Your task to perform on an android device: open chrome and create a bookmark for the current page Image 0: 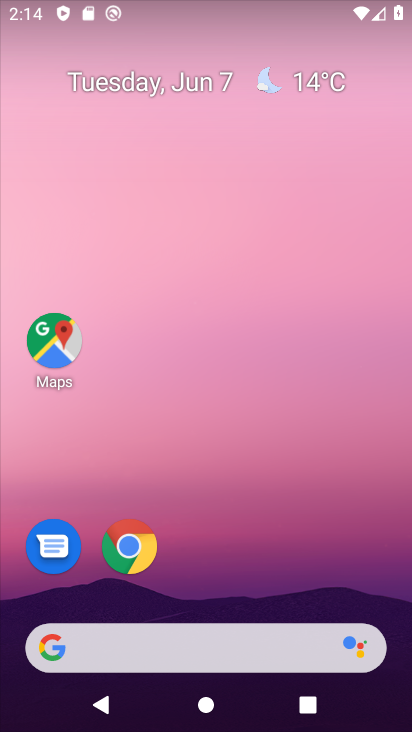
Step 0: click (133, 556)
Your task to perform on an android device: open chrome and create a bookmark for the current page Image 1: 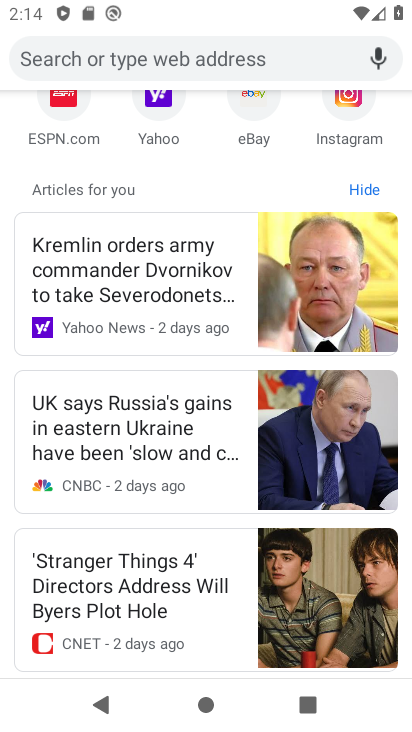
Step 1: drag from (192, 183) to (156, 687)
Your task to perform on an android device: open chrome and create a bookmark for the current page Image 2: 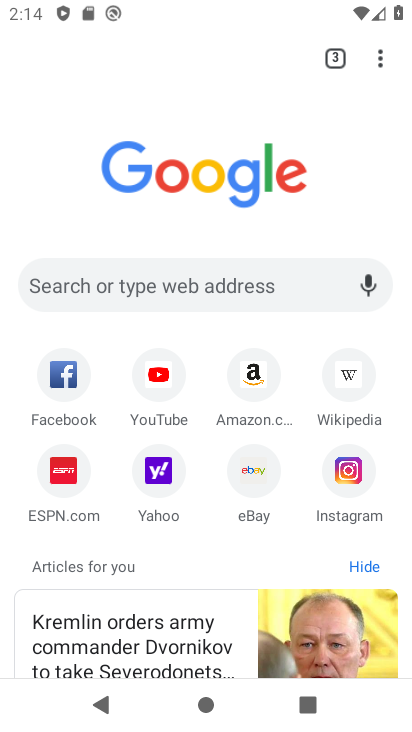
Step 2: click (151, 641)
Your task to perform on an android device: open chrome and create a bookmark for the current page Image 3: 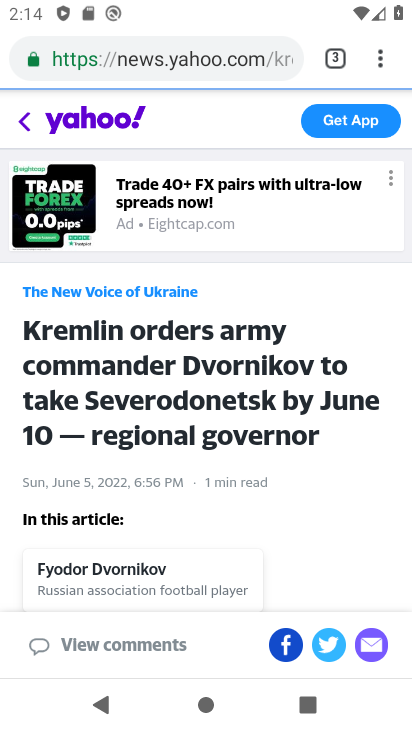
Step 3: click (387, 61)
Your task to perform on an android device: open chrome and create a bookmark for the current page Image 4: 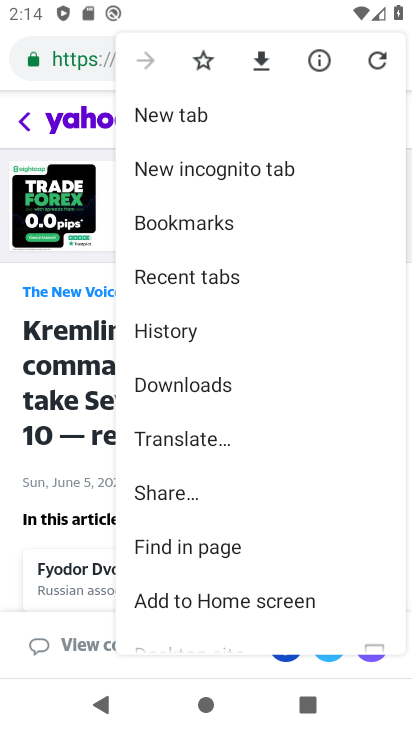
Step 4: click (207, 61)
Your task to perform on an android device: open chrome and create a bookmark for the current page Image 5: 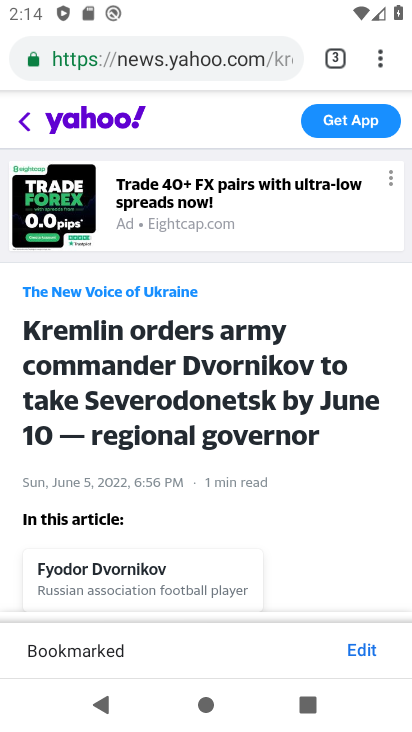
Step 5: task complete